Your task to perform on an android device: find snoozed emails in the gmail app Image 0: 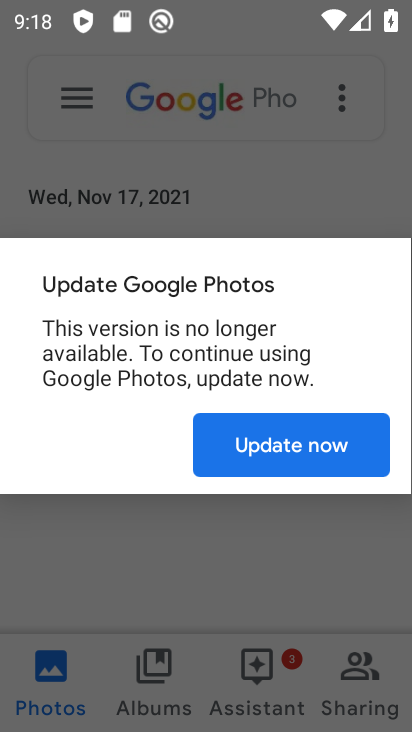
Step 0: press home button
Your task to perform on an android device: find snoozed emails in the gmail app Image 1: 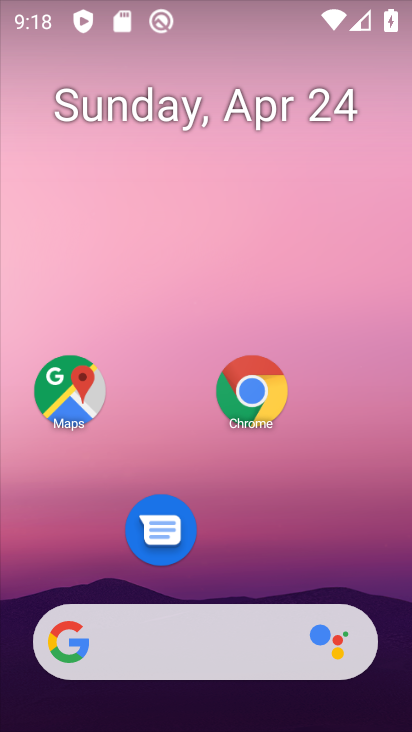
Step 1: drag from (242, 562) to (210, 14)
Your task to perform on an android device: find snoozed emails in the gmail app Image 2: 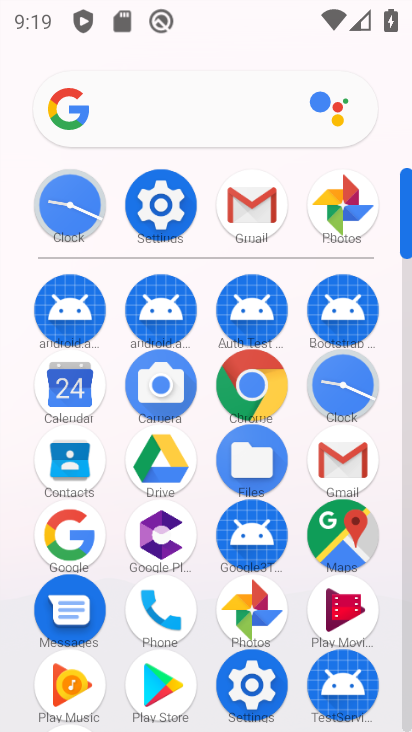
Step 2: click (246, 200)
Your task to perform on an android device: find snoozed emails in the gmail app Image 3: 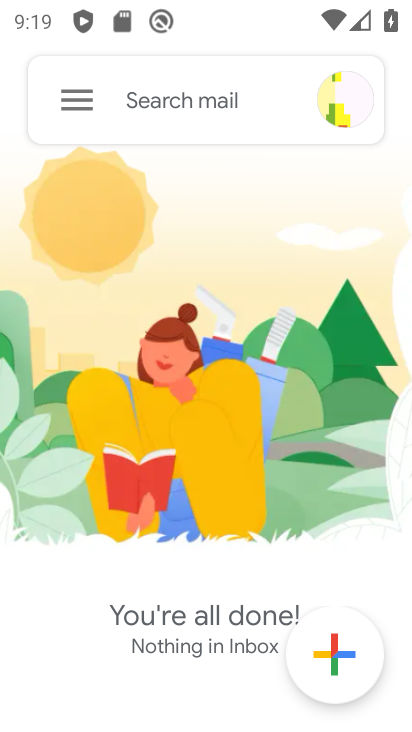
Step 3: click (56, 95)
Your task to perform on an android device: find snoozed emails in the gmail app Image 4: 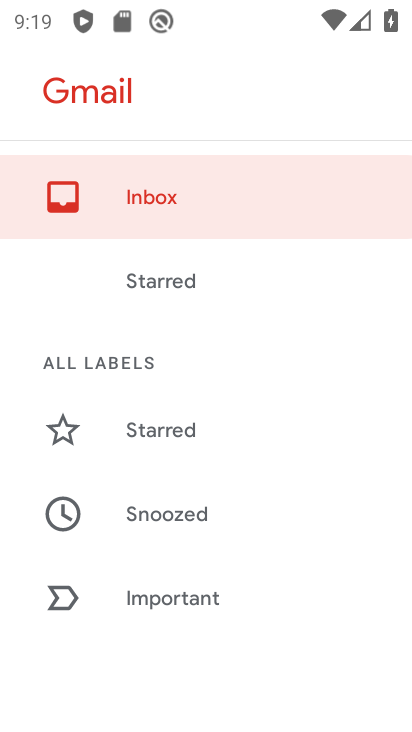
Step 4: drag from (162, 563) to (162, 167)
Your task to perform on an android device: find snoozed emails in the gmail app Image 5: 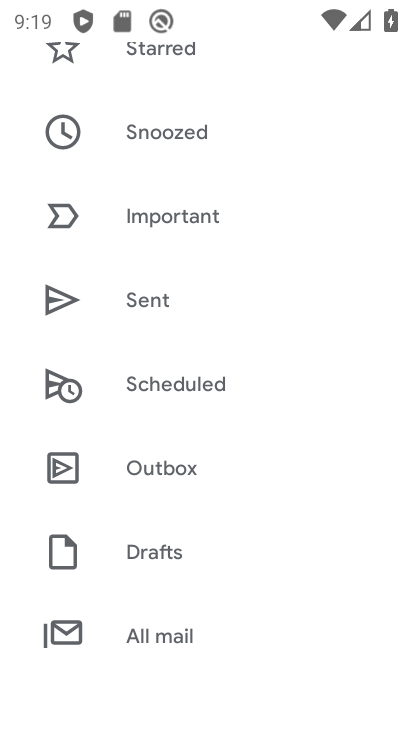
Step 5: click (182, 122)
Your task to perform on an android device: find snoozed emails in the gmail app Image 6: 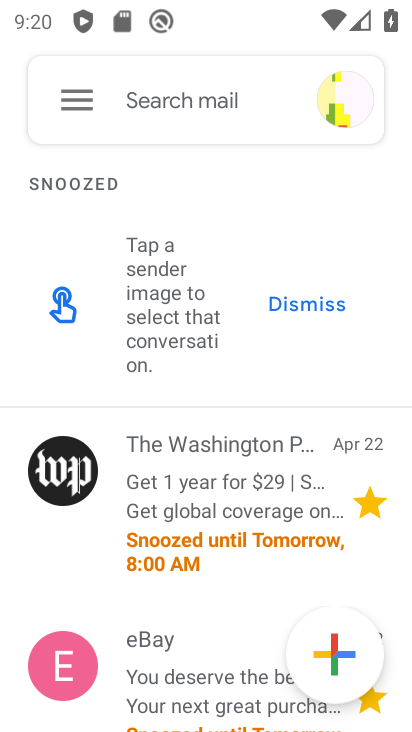
Step 6: task complete